Your task to perform on an android device: Open Wikipedia Image 0: 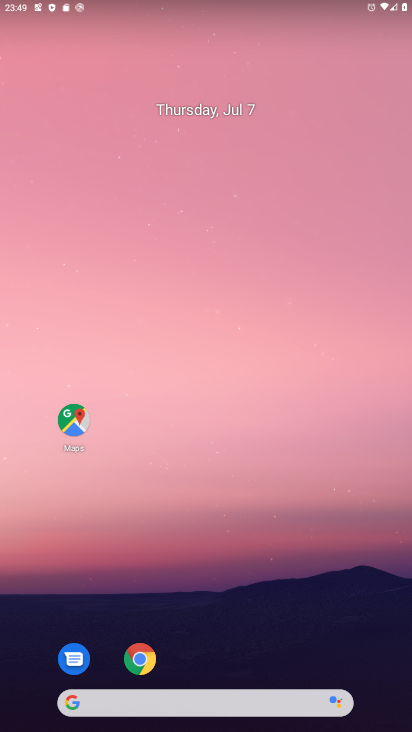
Step 0: click (140, 668)
Your task to perform on an android device: Open Wikipedia Image 1: 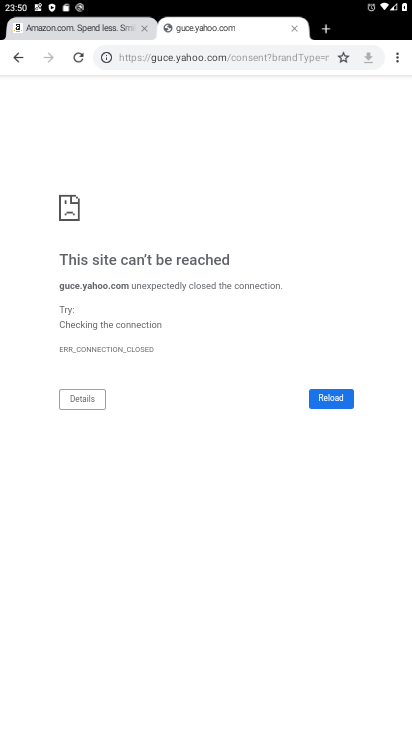
Step 1: click (324, 30)
Your task to perform on an android device: Open Wikipedia Image 2: 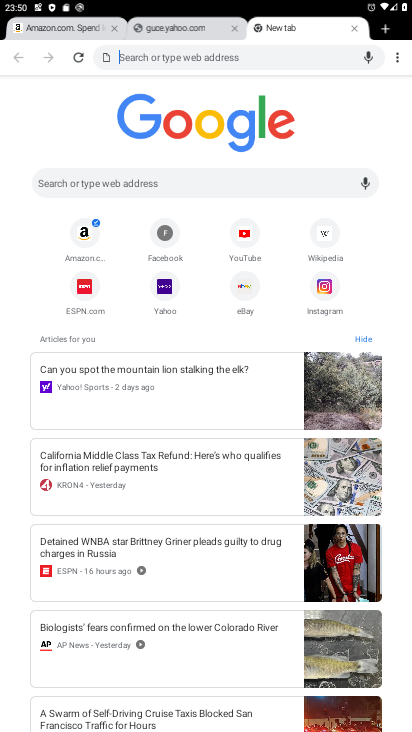
Step 2: click (332, 239)
Your task to perform on an android device: Open Wikipedia Image 3: 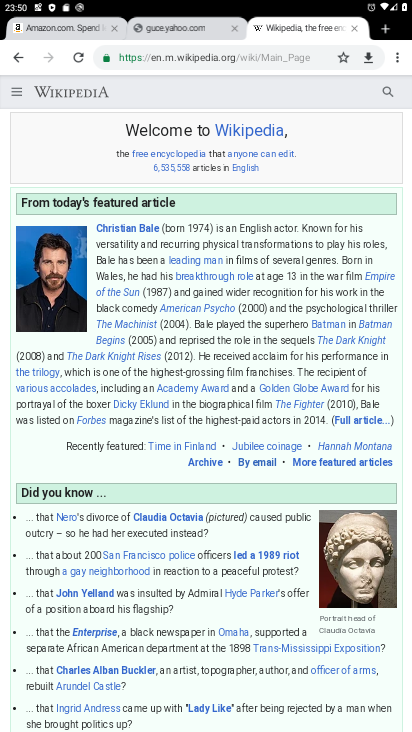
Step 3: task complete